Your task to perform on an android device: When is my next meeting? Image 0: 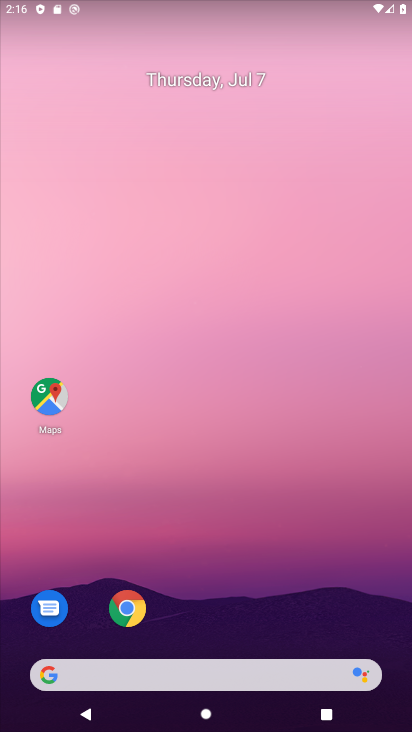
Step 0: drag from (384, 658) to (341, 87)
Your task to perform on an android device: When is my next meeting? Image 1: 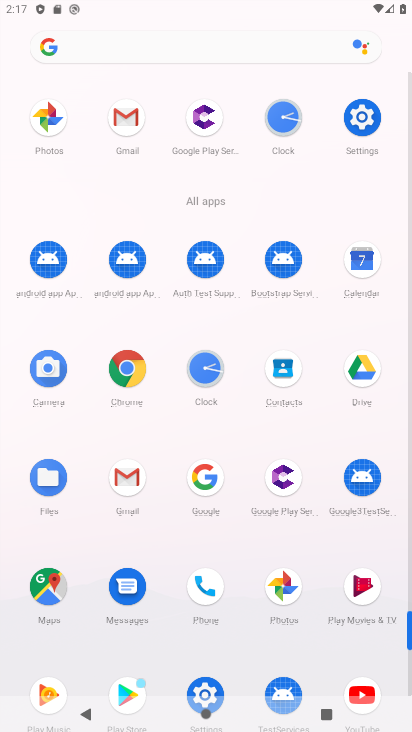
Step 1: click (409, 680)
Your task to perform on an android device: When is my next meeting? Image 2: 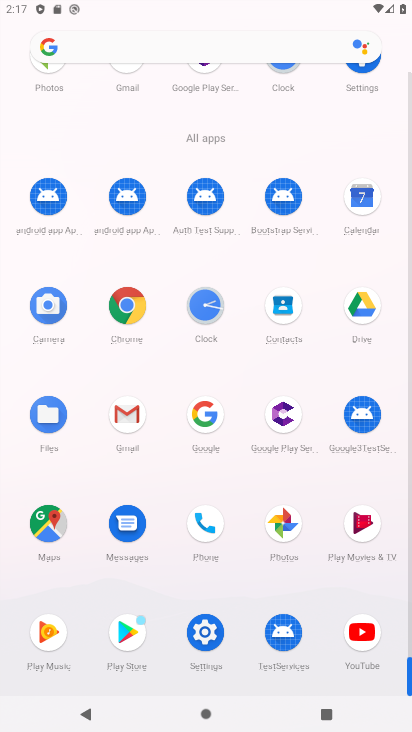
Step 2: click (363, 196)
Your task to perform on an android device: When is my next meeting? Image 3: 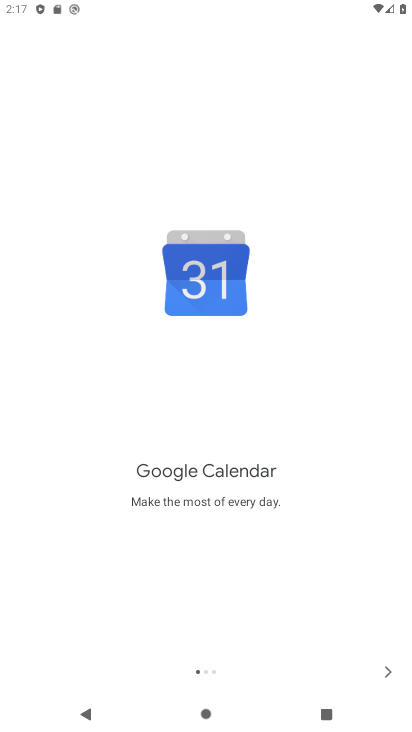
Step 3: click (387, 674)
Your task to perform on an android device: When is my next meeting? Image 4: 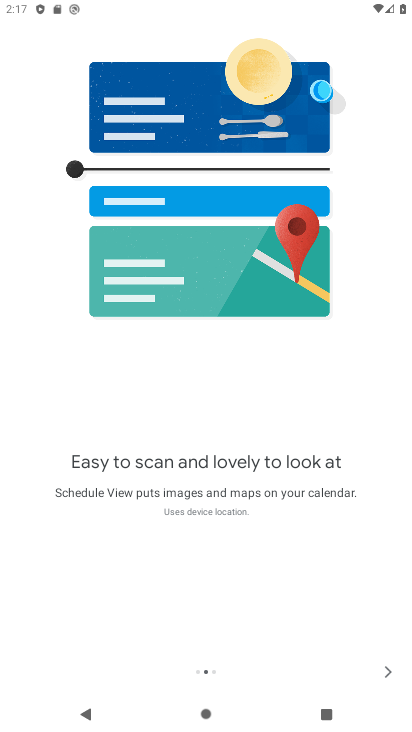
Step 4: click (387, 674)
Your task to perform on an android device: When is my next meeting? Image 5: 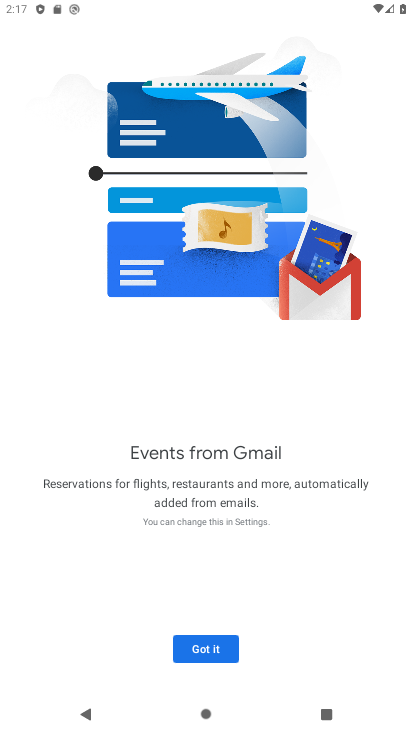
Step 5: click (202, 649)
Your task to perform on an android device: When is my next meeting? Image 6: 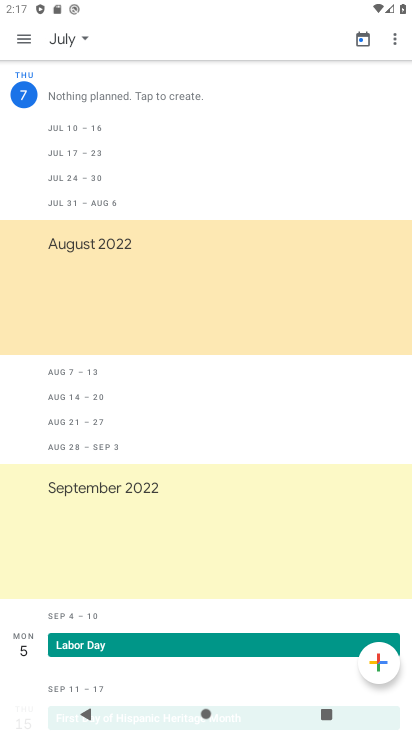
Step 6: drag from (149, 146) to (180, 437)
Your task to perform on an android device: When is my next meeting? Image 7: 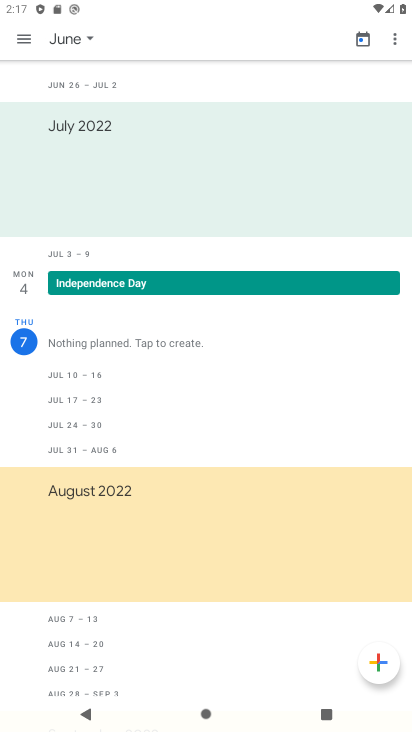
Step 7: drag from (276, 213) to (251, 416)
Your task to perform on an android device: When is my next meeting? Image 8: 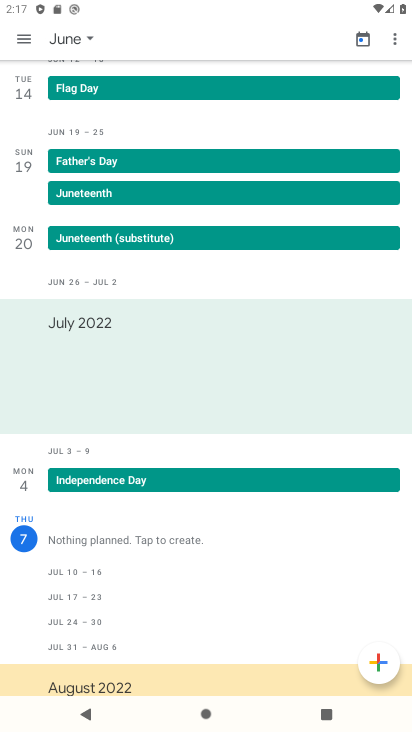
Step 8: click (24, 34)
Your task to perform on an android device: When is my next meeting? Image 9: 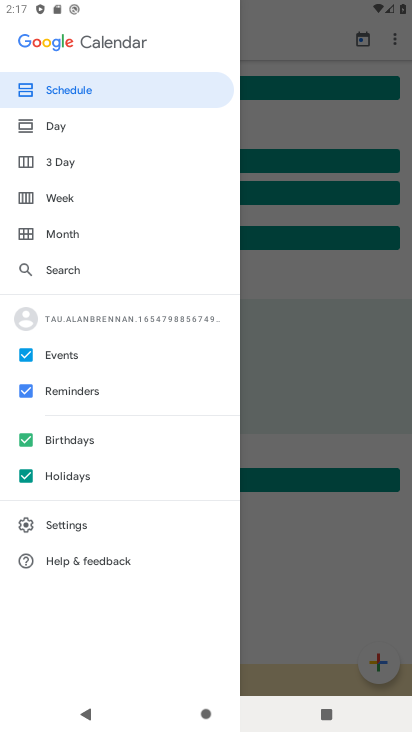
Step 9: click (75, 94)
Your task to perform on an android device: When is my next meeting? Image 10: 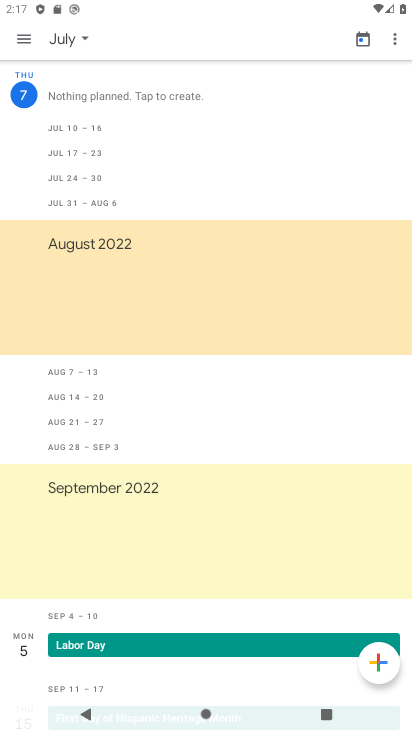
Step 10: task complete